Your task to perform on an android device: install app "Instagram" Image 0: 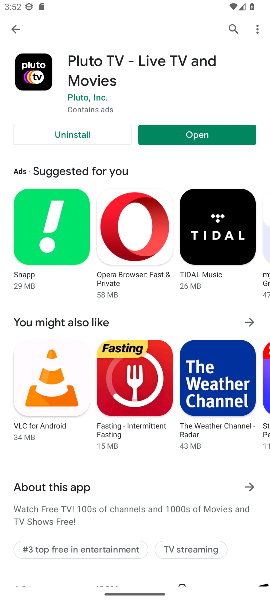
Step 0: press home button
Your task to perform on an android device: install app "Instagram" Image 1: 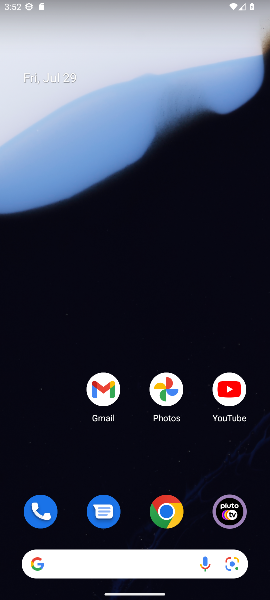
Step 1: drag from (43, 533) to (199, 48)
Your task to perform on an android device: install app "Instagram" Image 2: 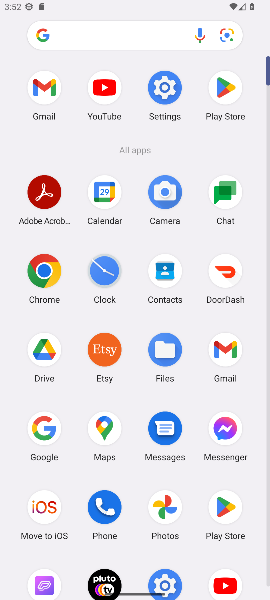
Step 2: click (228, 516)
Your task to perform on an android device: install app "Instagram" Image 3: 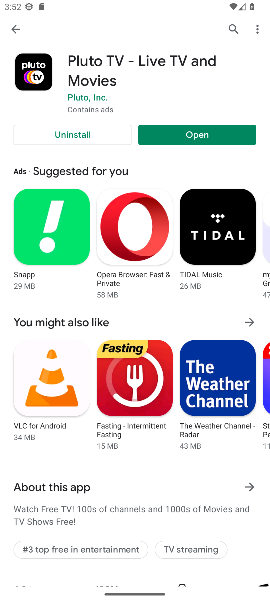
Step 3: click (11, 24)
Your task to perform on an android device: install app "Instagram" Image 4: 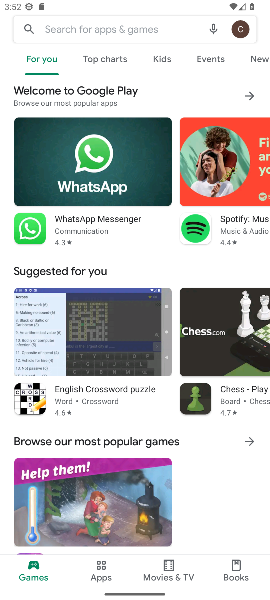
Step 4: click (70, 25)
Your task to perform on an android device: install app "Instagram" Image 5: 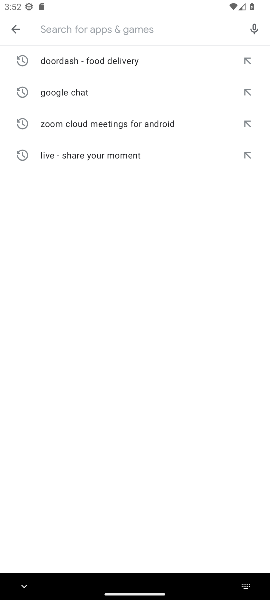
Step 5: type "Instagram"
Your task to perform on an android device: install app "Instagram" Image 6: 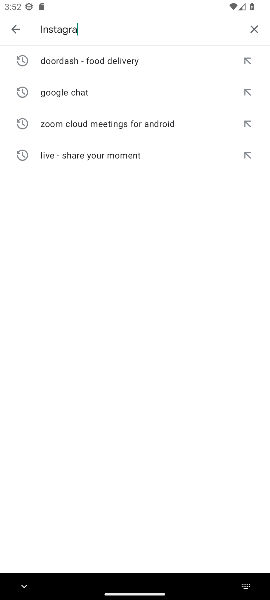
Step 6: type ""
Your task to perform on an android device: install app "Instagram" Image 7: 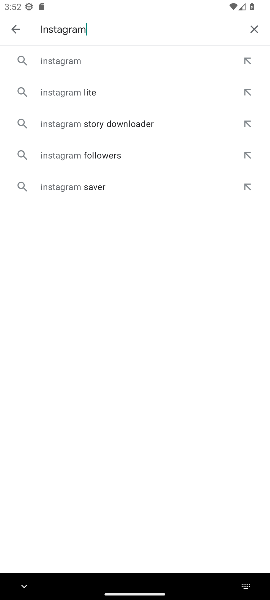
Step 7: click (55, 58)
Your task to perform on an android device: install app "Instagram" Image 8: 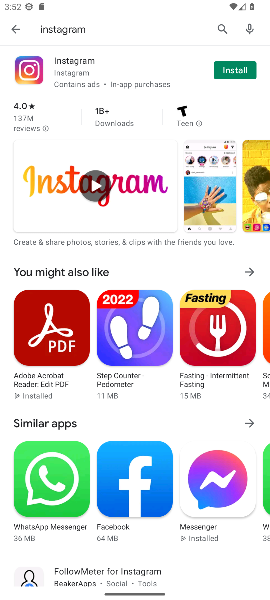
Step 8: click (231, 69)
Your task to perform on an android device: install app "Instagram" Image 9: 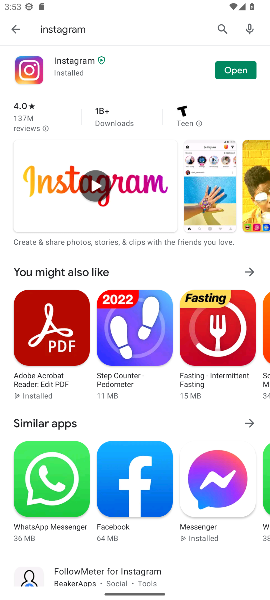
Step 9: click (231, 78)
Your task to perform on an android device: install app "Instagram" Image 10: 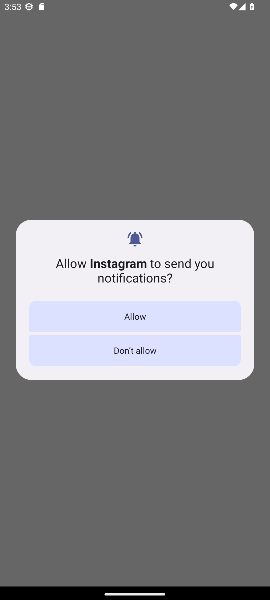
Step 10: task complete